Your task to perform on an android device: add a contact Image 0: 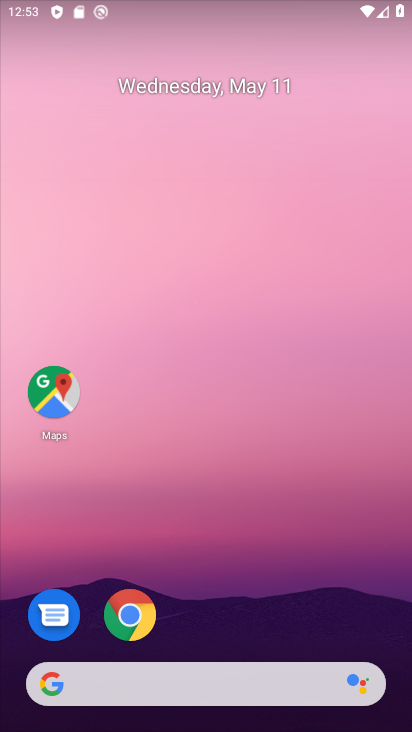
Step 0: drag from (358, 612) to (400, 152)
Your task to perform on an android device: add a contact Image 1: 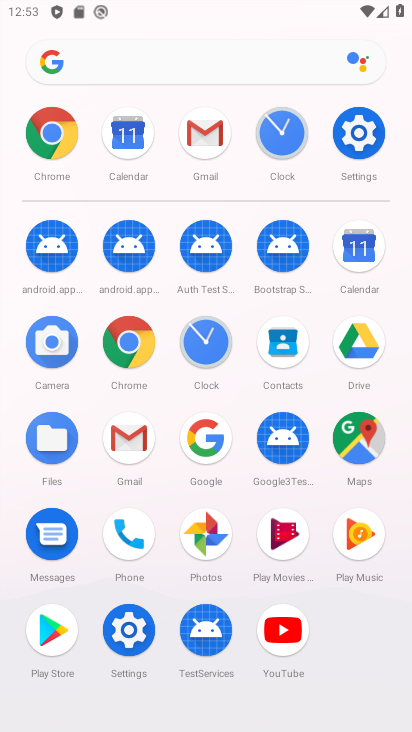
Step 1: click (275, 358)
Your task to perform on an android device: add a contact Image 2: 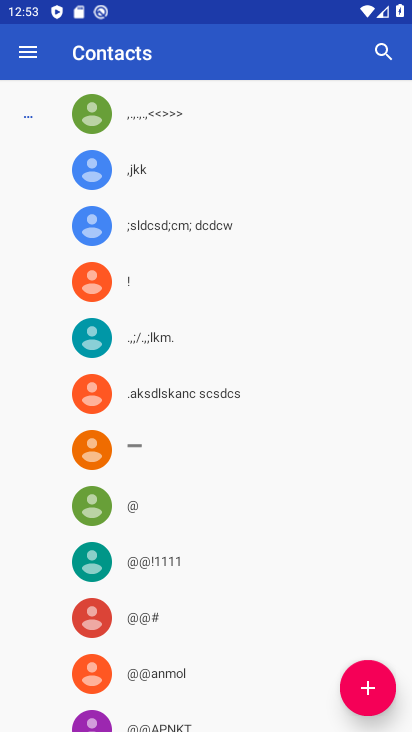
Step 2: click (362, 679)
Your task to perform on an android device: add a contact Image 3: 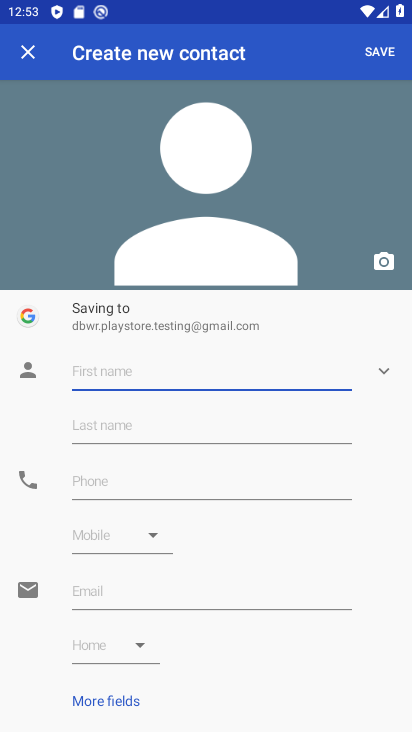
Step 3: click (184, 381)
Your task to perform on an android device: add a contact Image 4: 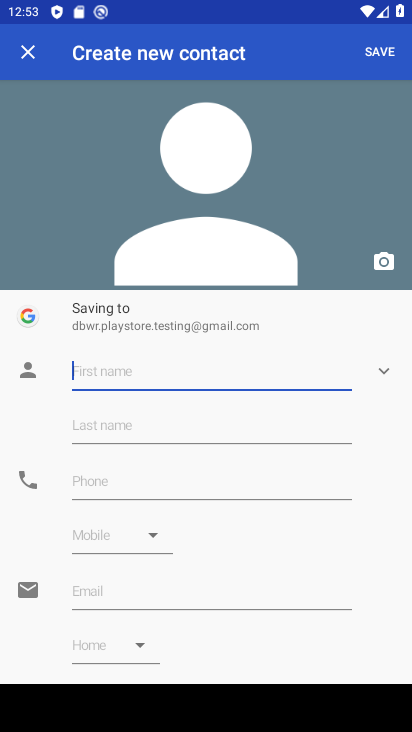
Step 4: type "aniket"
Your task to perform on an android device: add a contact Image 5: 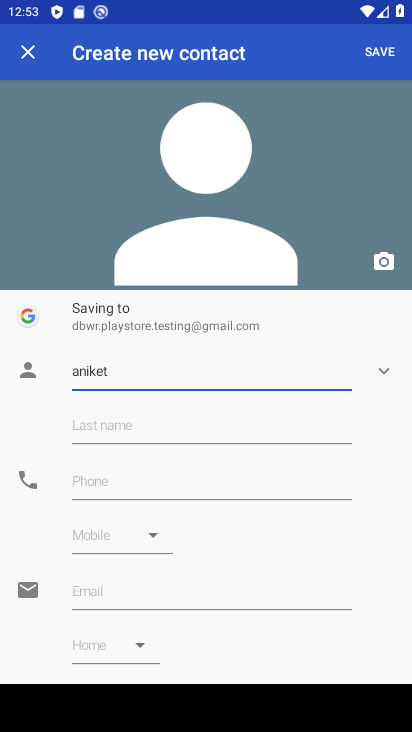
Step 5: click (187, 470)
Your task to perform on an android device: add a contact Image 6: 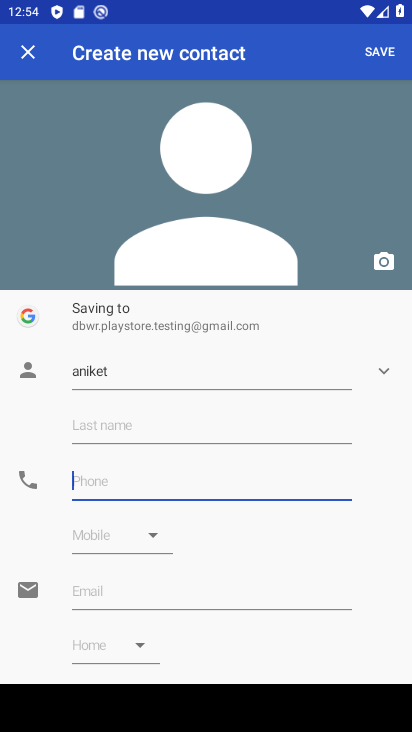
Step 6: type "499583932873"
Your task to perform on an android device: add a contact Image 7: 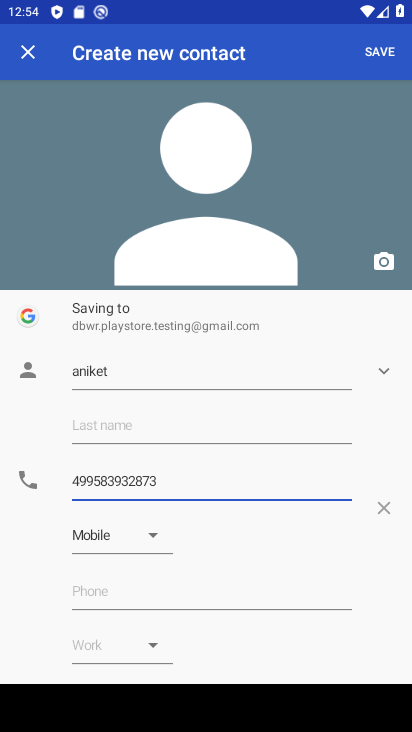
Step 7: click (380, 50)
Your task to perform on an android device: add a contact Image 8: 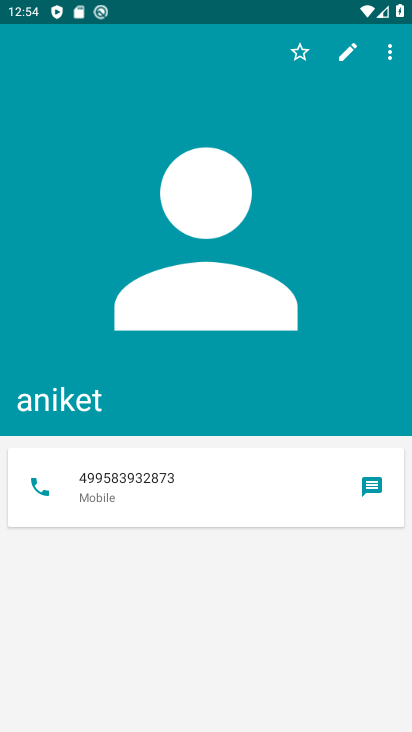
Step 8: task complete